Your task to perform on an android device: Go to location settings Image 0: 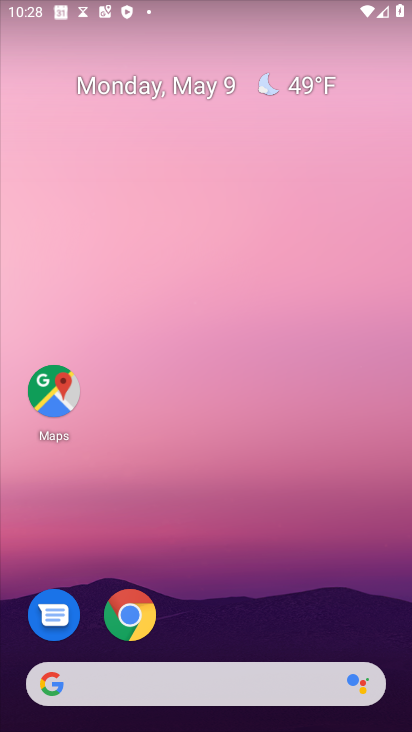
Step 0: drag from (252, 628) to (234, 126)
Your task to perform on an android device: Go to location settings Image 1: 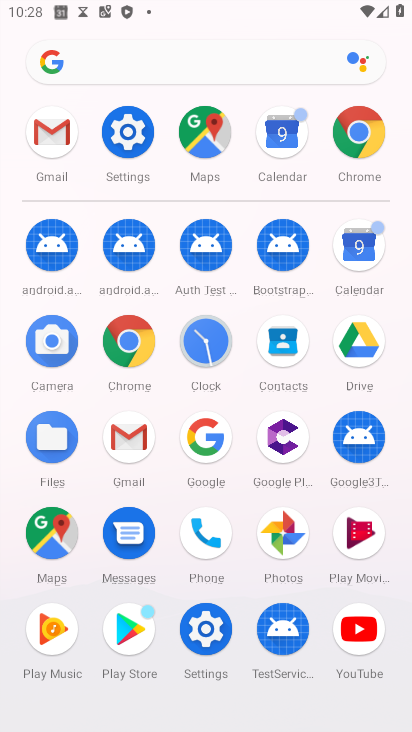
Step 1: click (195, 636)
Your task to perform on an android device: Go to location settings Image 2: 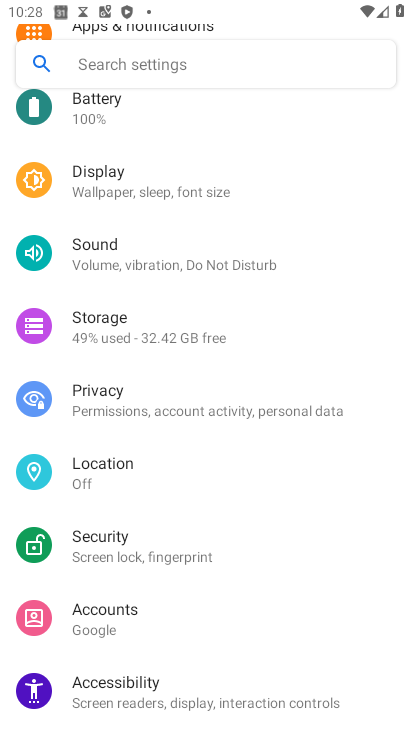
Step 2: click (130, 489)
Your task to perform on an android device: Go to location settings Image 3: 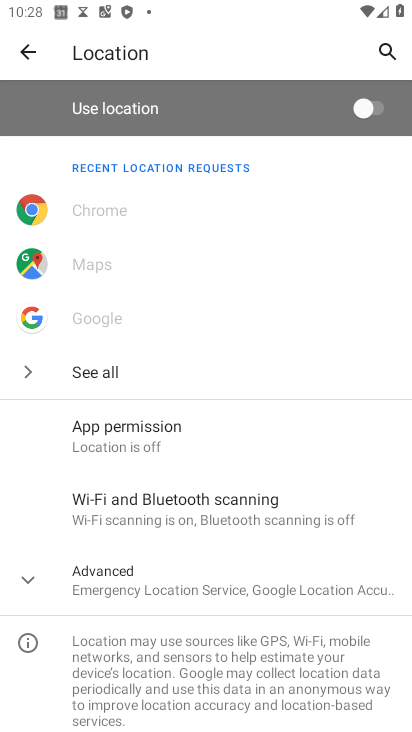
Step 3: task complete